Your task to perform on an android device: change text size in settings app Image 0: 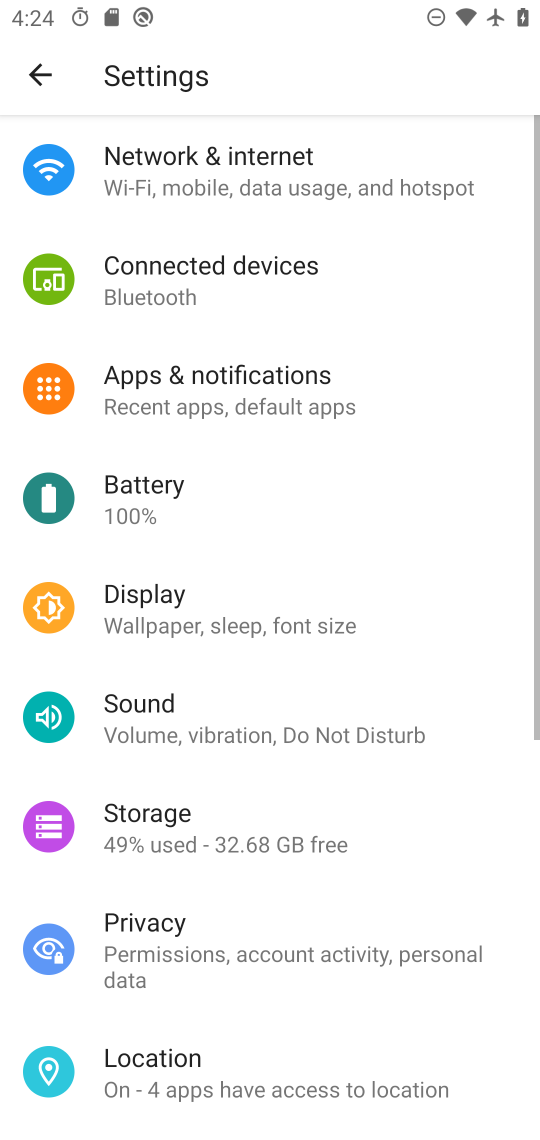
Step 0: press home button
Your task to perform on an android device: change text size in settings app Image 1: 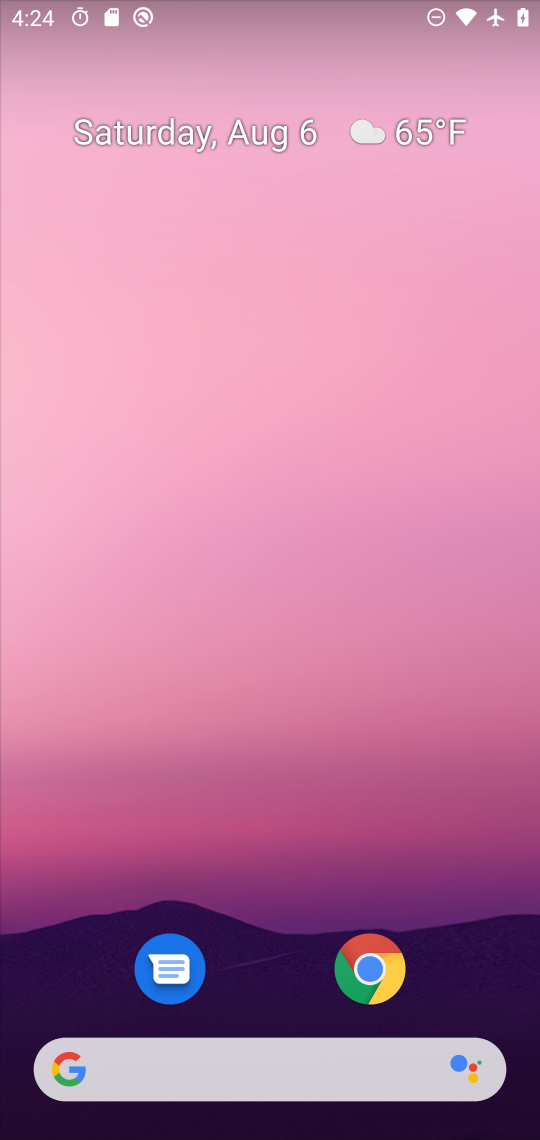
Step 1: drag from (274, 947) to (243, 18)
Your task to perform on an android device: change text size in settings app Image 2: 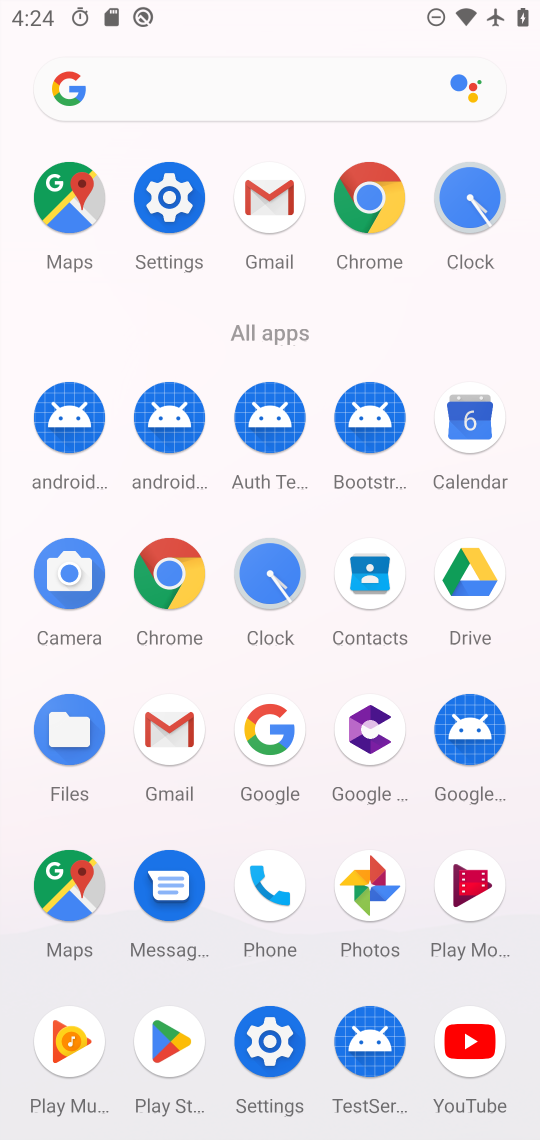
Step 2: click (188, 207)
Your task to perform on an android device: change text size in settings app Image 3: 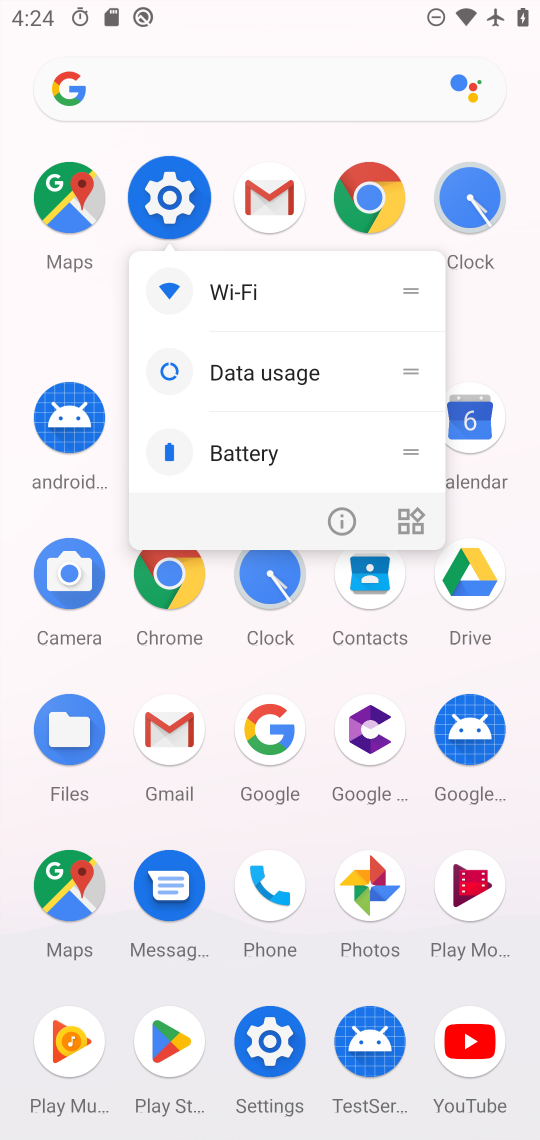
Step 3: click (185, 207)
Your task to perform on an android device: change text size in settings app Image 4: 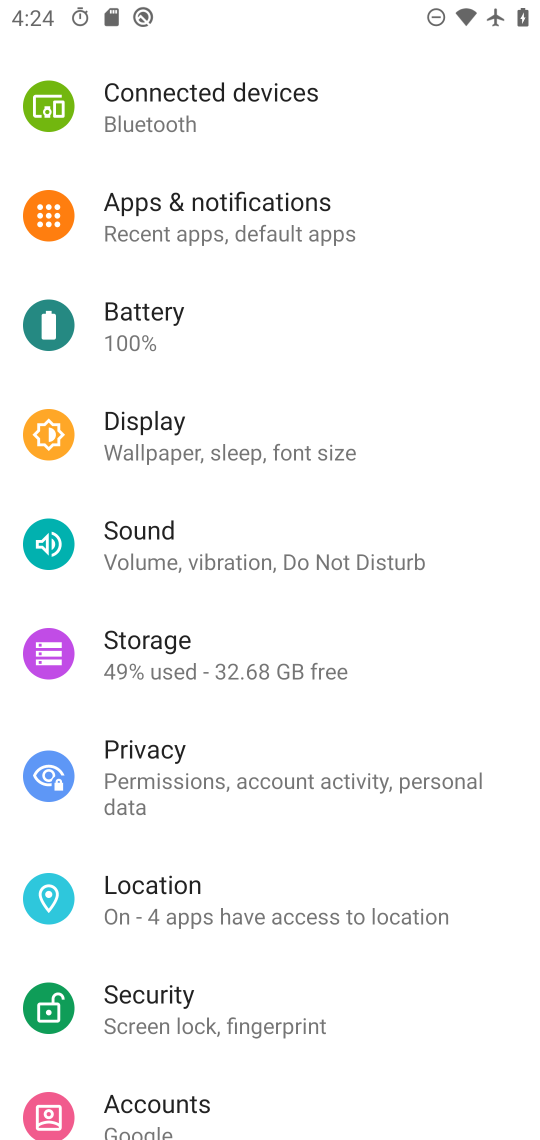
Step 4: drag from (177, 834) to (211, 612)
Your task to perform on an android device: change text size in settings app Image 5: 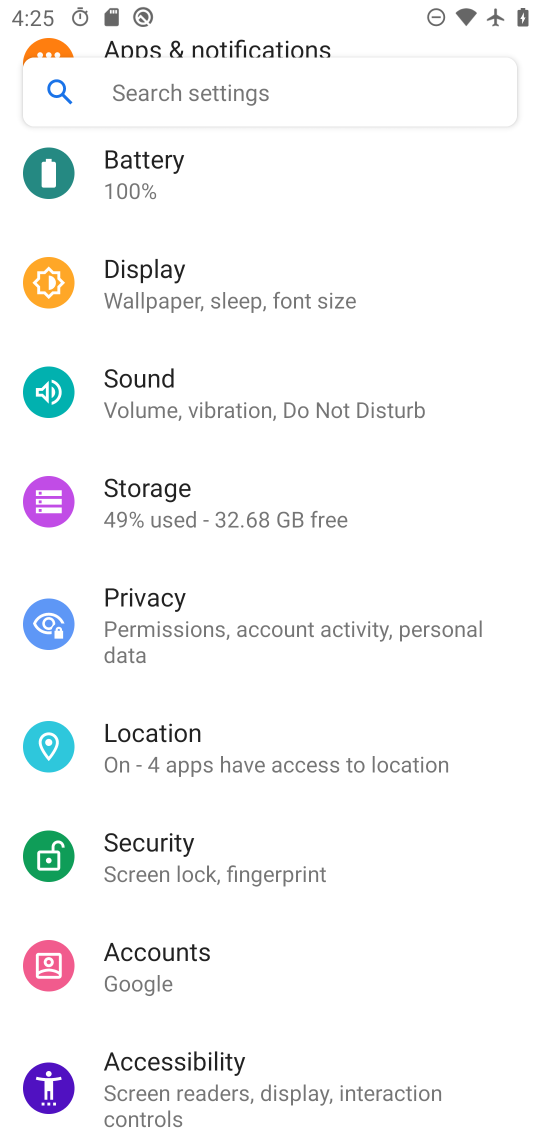
Step 5: click (183, 315)
Your task to perform on an android device: change text size in settings app Image 6: 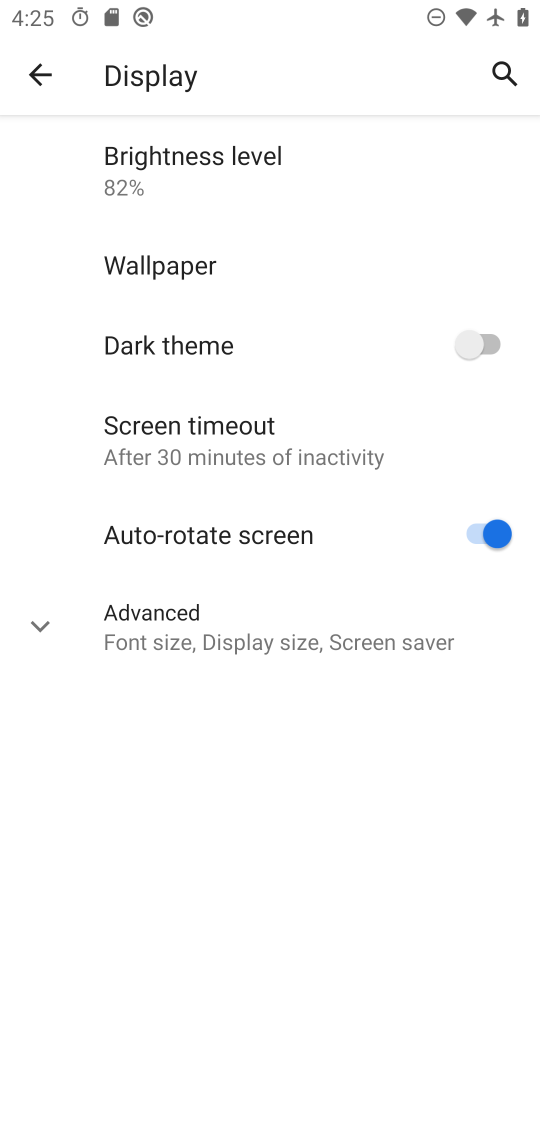
Step 6: click (39, 624)
Your task to perform on an android device: change text size in settings app Image 7: 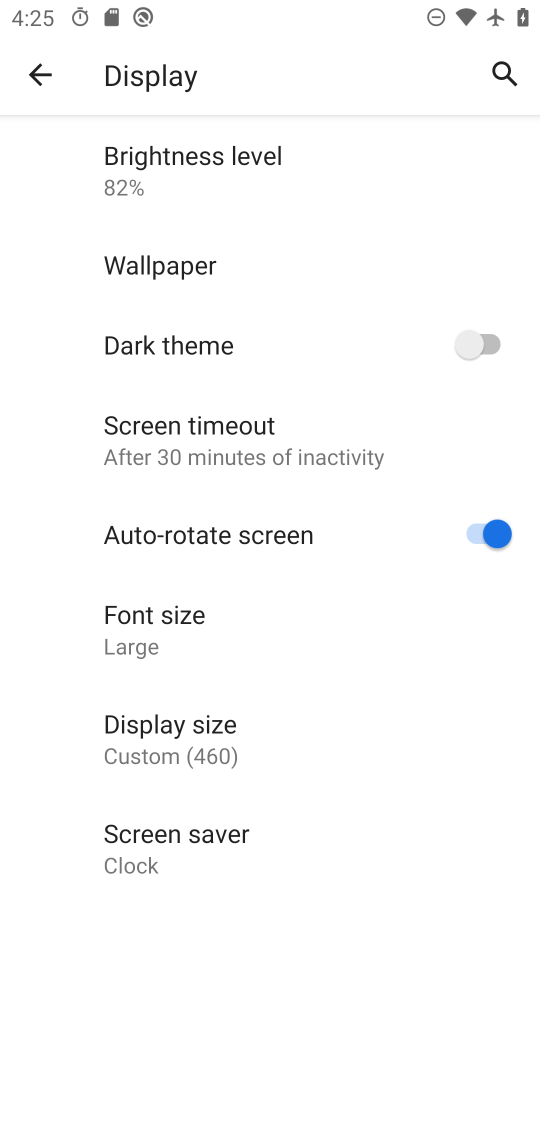
Step 7: click (122, 626)
Your task to perform on an android device: change text size in settings app Image 8: 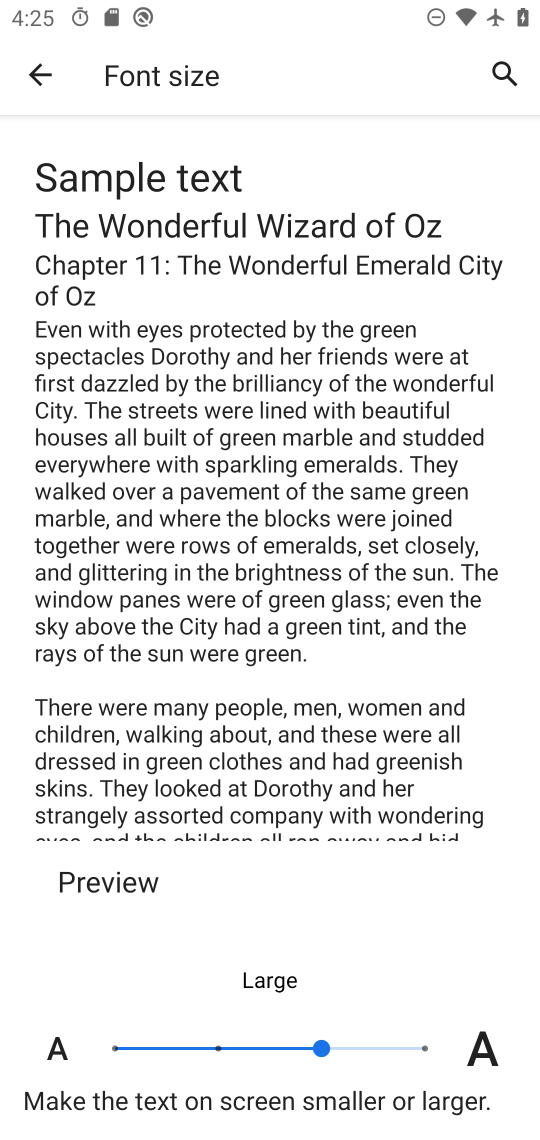
Step 8: click (418, 1047)
Your task to perform on an android device: change text size in settings app Image 9: 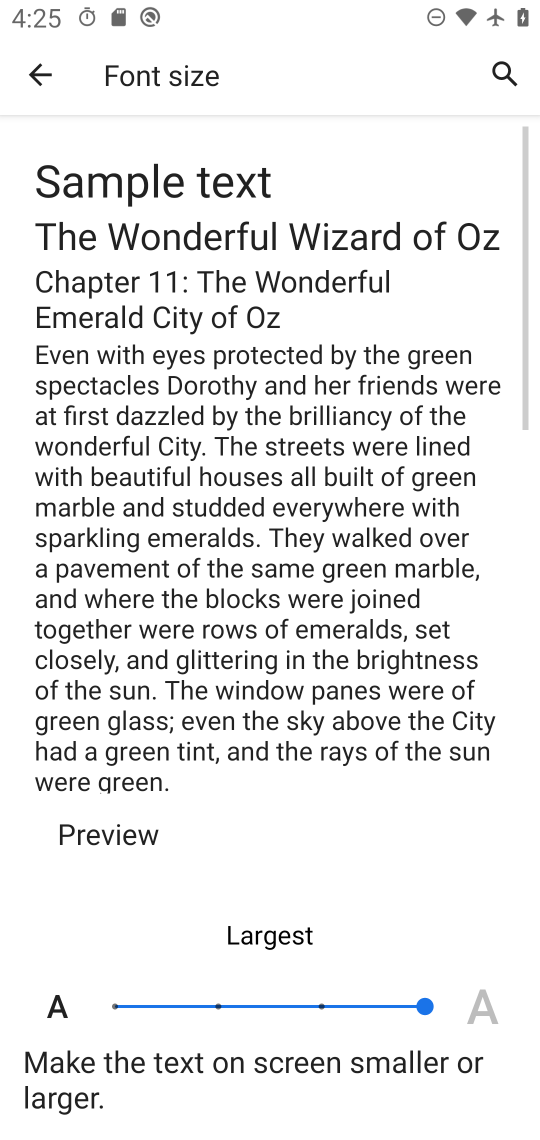
Step 9: task complete